Your task to perform on an android device: toggle notification dots Image 0: 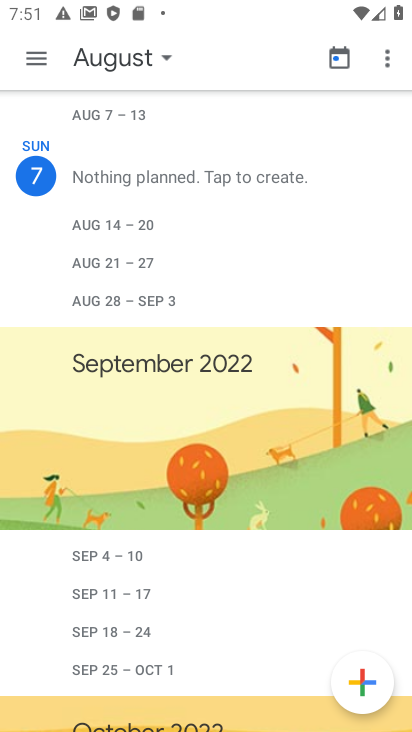
Step 0: press home button
Your task to perform on an android device: toggle notification dots Image 1: 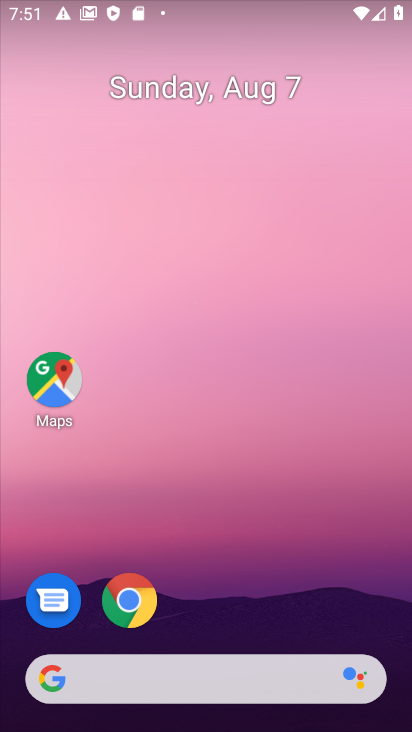
Step 1: drag from (200, 634) to (200, 195)
Your task to perform on an android device: toggle notification dots Image 2: 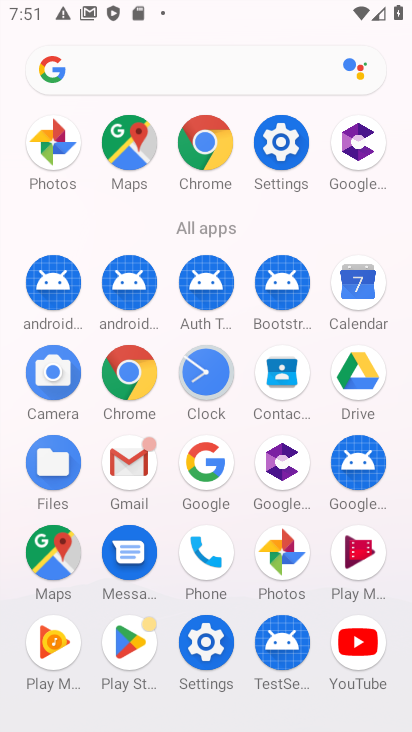
Step 2: click (281, 153)
Your task to perform on an android device: toggle notification dots Image 3: 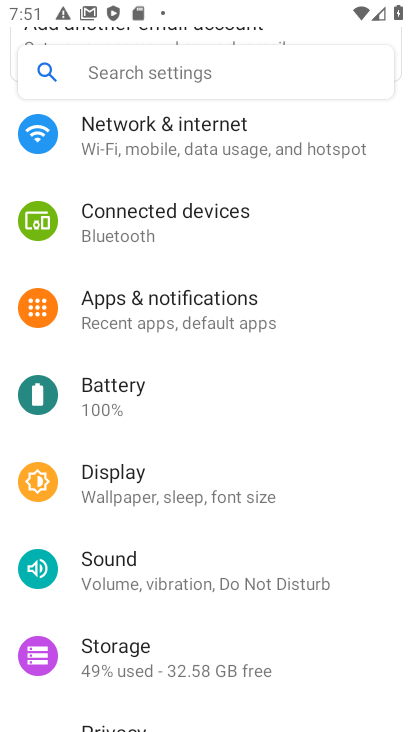
Step 3: click (132, 325)
Your task to perform on an android device: toggle notification dots Image 4: 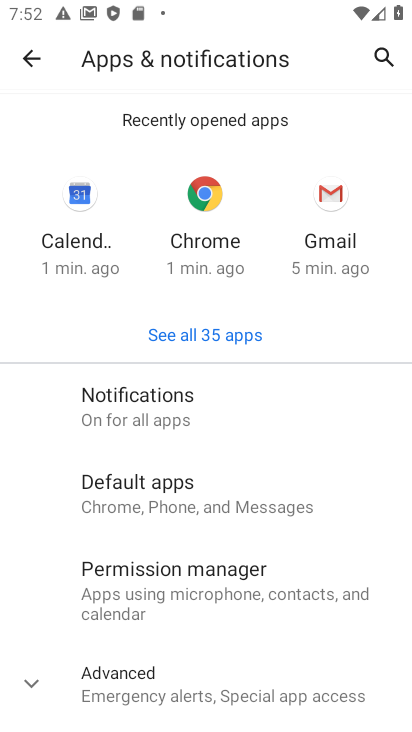
Step 4: click (112, 415)
Your task to perform on an android device: toggle notification dots Image 5: 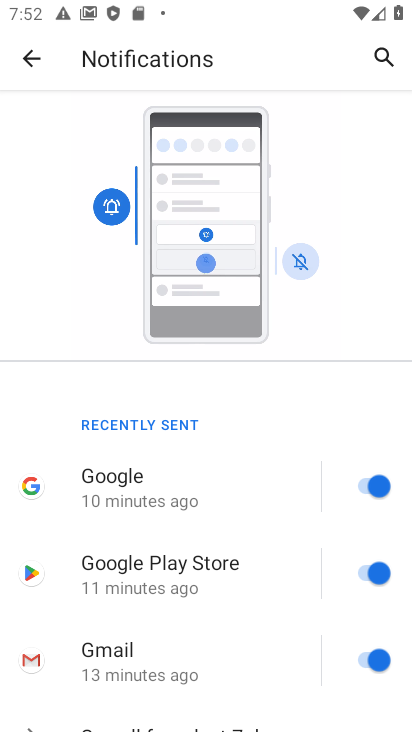
Step 5: drag from (132, 472) to (116, 291)
Your task to perform on an android device: toggle notification dots Image 6: 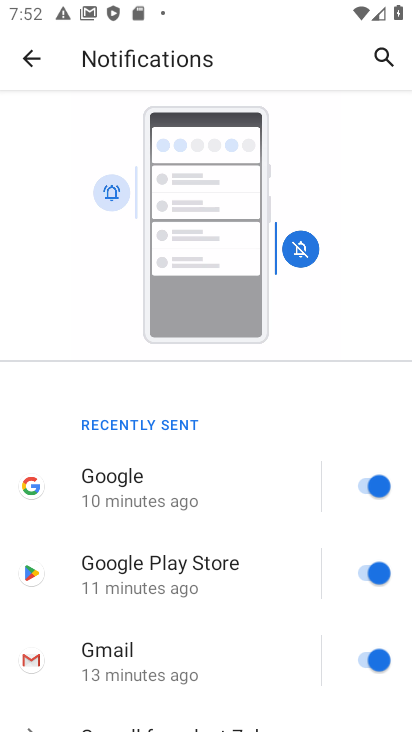
Step 6: click (133, 248)
Your task to perform on an android device: toggle notification dots Image 7: 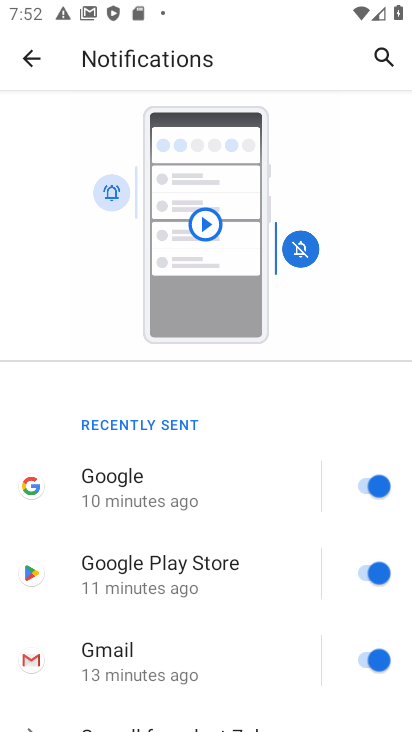
Step 7: drag from (162, 593) to (118, 197)
Your task to perform on an android device: toggle notification dots Image 8: 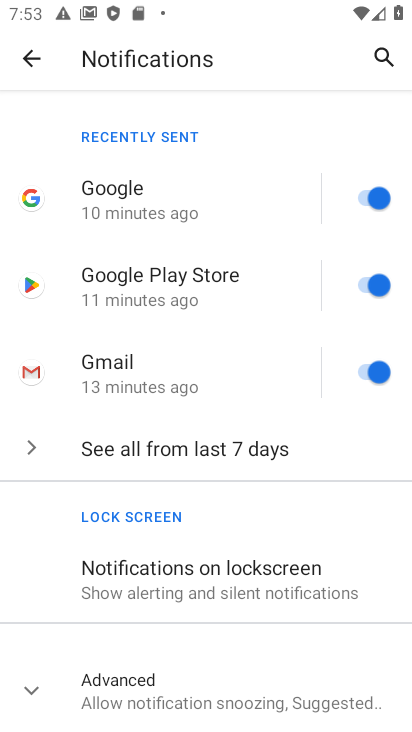
Step 8: click (126, 685)
Your task to perform on an android device: toggle notification dots Image 9: 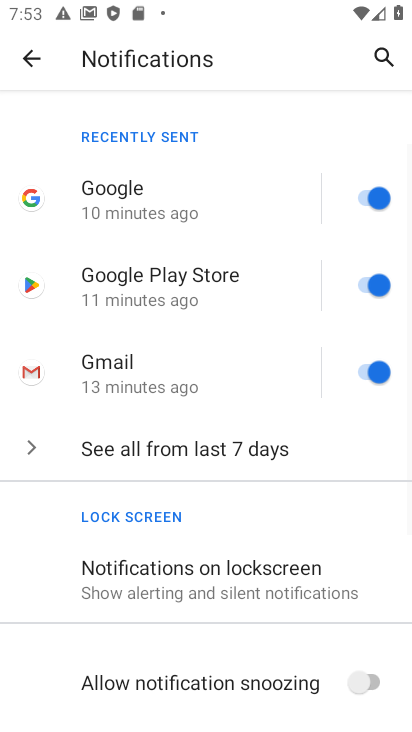
Step 9: drag from (193, 664) to (219, 478)
Your task to perform on an android device: toggle notification dots Image 10: 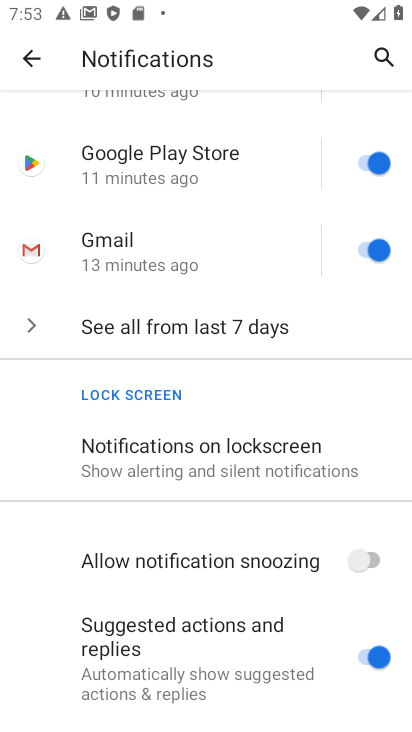
Step 10: drag from (220, 680) to (224, 441)
Your task to perform on an android device: toggle notification dots Image 11: 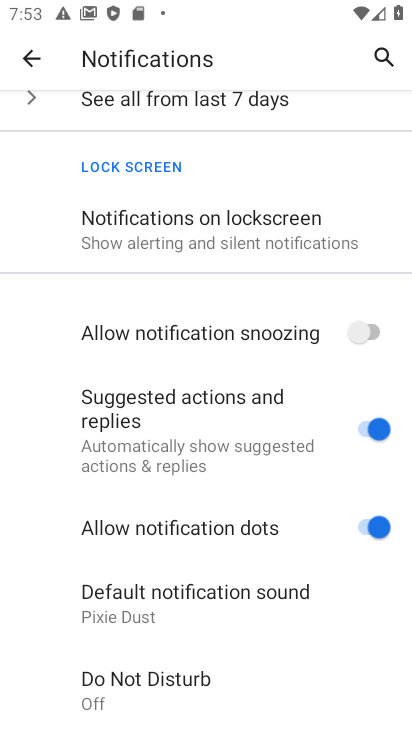
Step 11: click (365, 534)
Your task to perform on an android device: toggle notification dots Image 12: 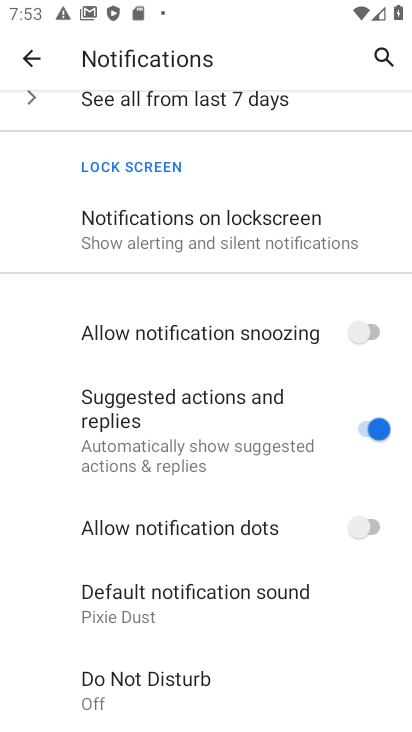
Step 12: task complete